Your task to perform on an android device: turn off notifications in google photos Image 0: 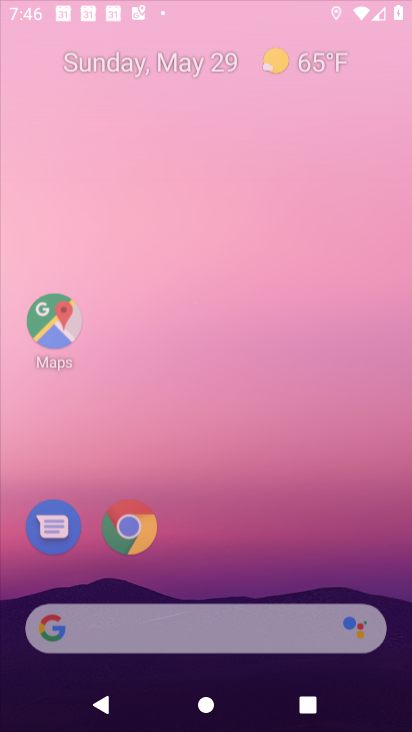
Step 0: drag from (204, 628) to (297, 212)
Your task to perform on an android device: turn off notifications in google photos Image 1: 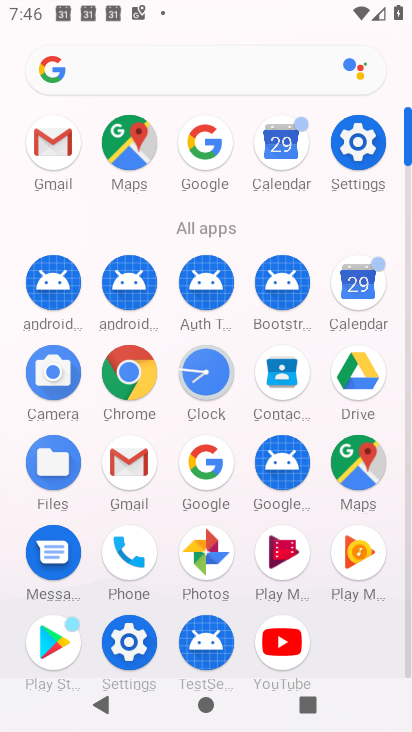
Step 1: click (371, 137)
Your task to perform on an android device: turn off notifications in google photos Image 2: 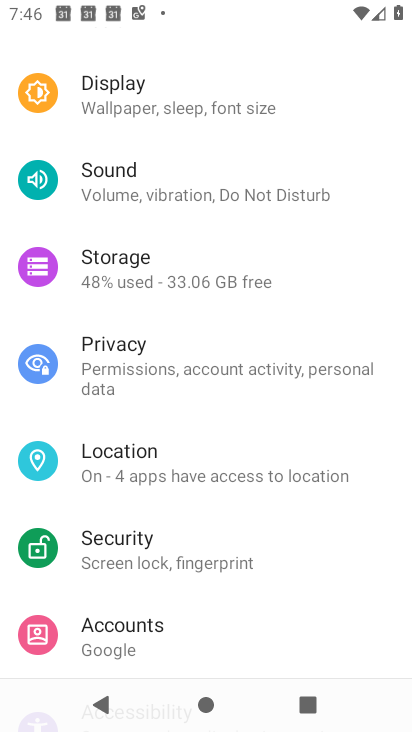
Step 2: click (117, 190)
Your task to perform on an android device: turn off notifications in google photos Image 3: 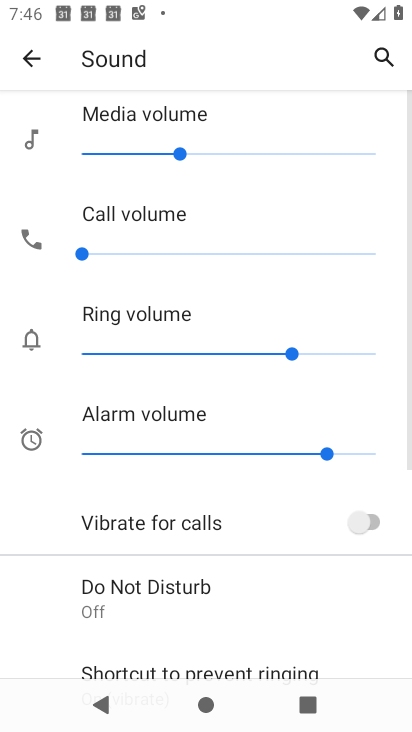
Step 3: drag from (206, 644) to (281, 110)
Your task to perform on an android device: turn off notifications in google photos Image 4: 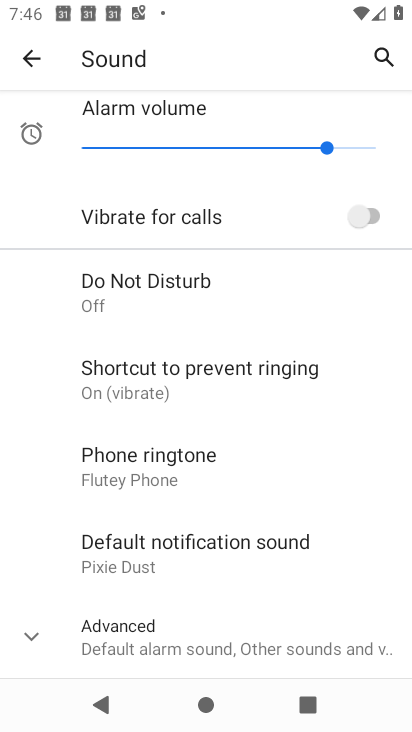
Step 4: click (177, 635)
Your task to perform on an android device: turn off notifications in google photos Image 5: 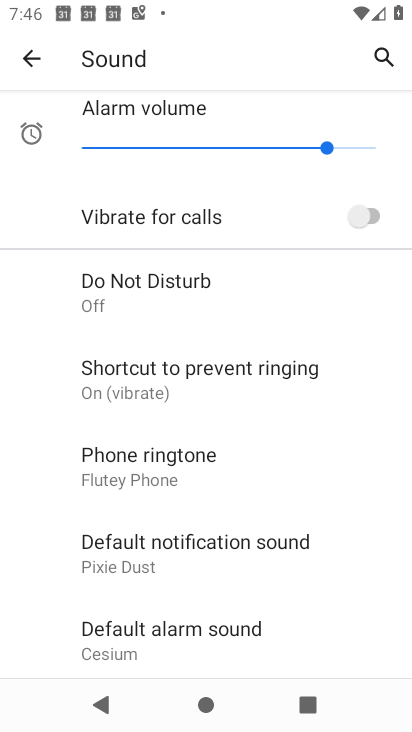
Step 5: task complete